Your task to perform on an android device: Open ESPN.com Image 0: 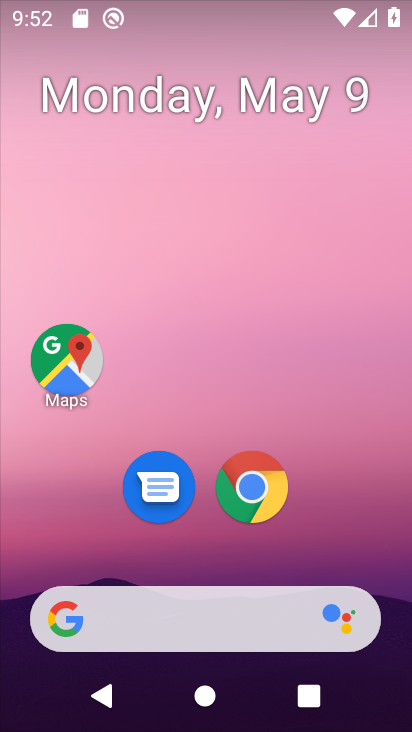
Step 0: drag from (387, 491) to (291, 17)
Your task to perform on an android device: Open ESPN.com Image 1: 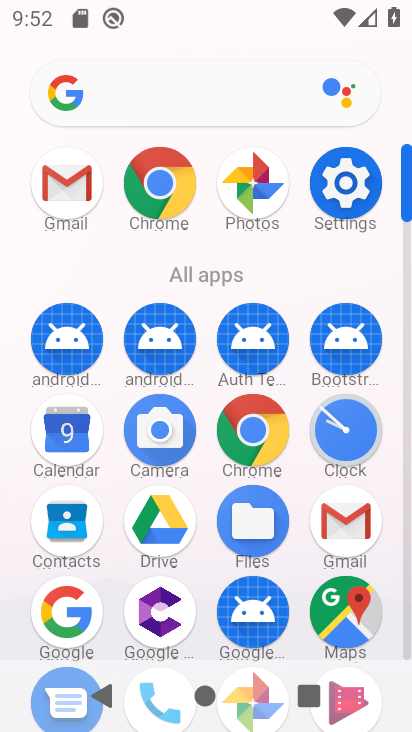
Step 1: click (161, 180)
Your task to perform on an android device: Open ESPN.com Image 2: 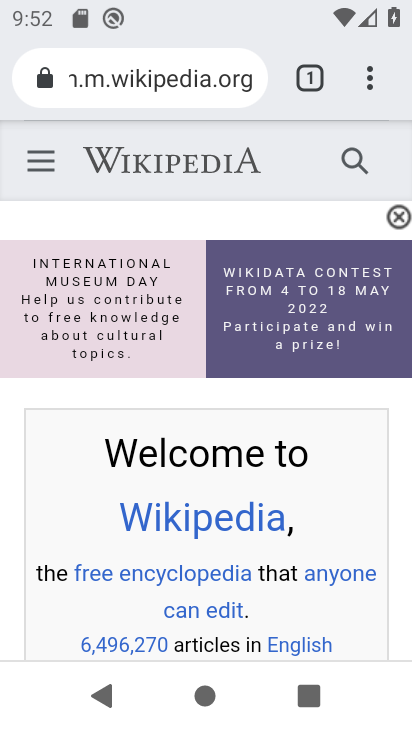
Step 2: click (160, 66)
Your task to perform on an android device: Open ESPN.com Image 3: 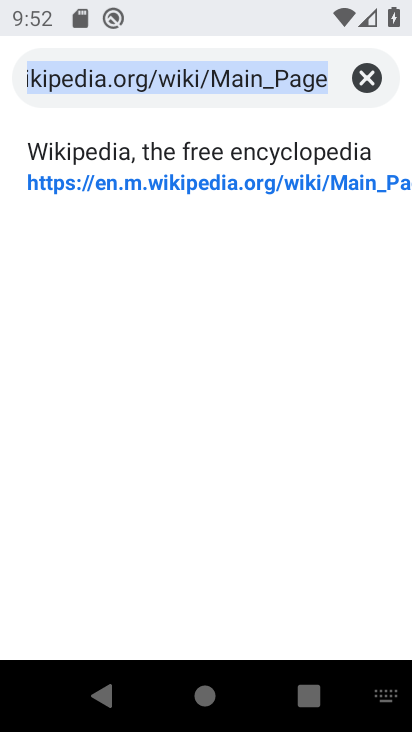
Step 3: click (368, 77)
Your task to perform on an android device: Open ESPN.com Image 4: 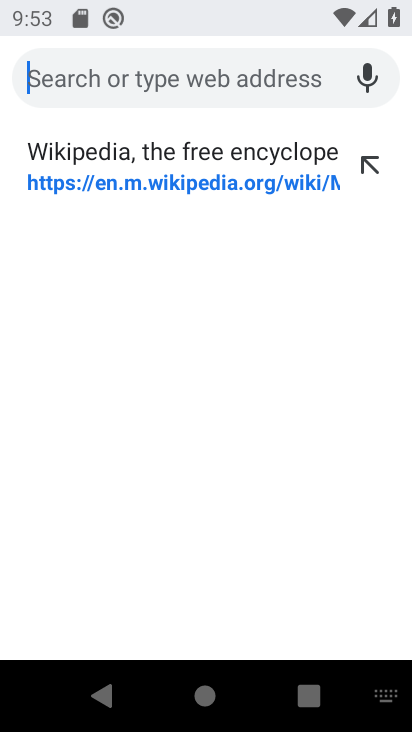
Step 4: type "ESPN.com"
Your task to perform on an android device: Open ESPN.com Image 5: 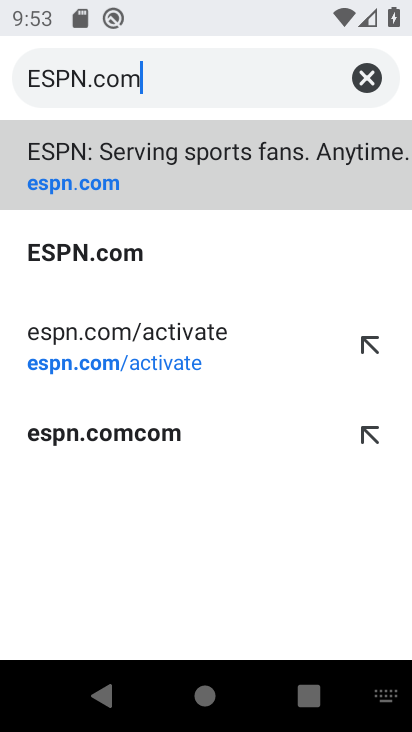
Step 5: type ""
Your task to perform on an android device: Open ESPN.com Image 6: 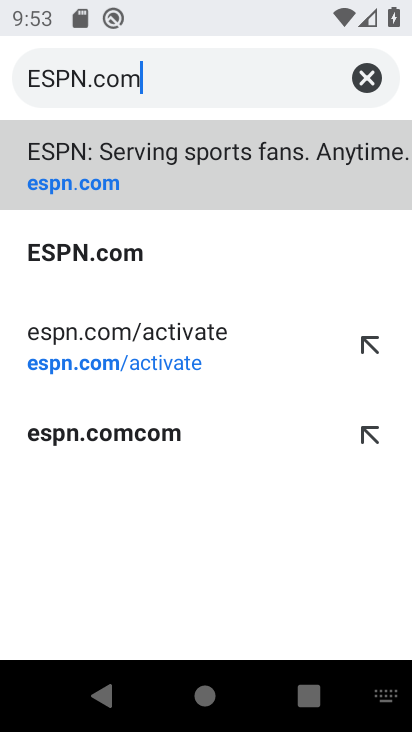
Step 6: click (97, 240)
Your task to perform on an android device: Open ESPN.com Image 7: 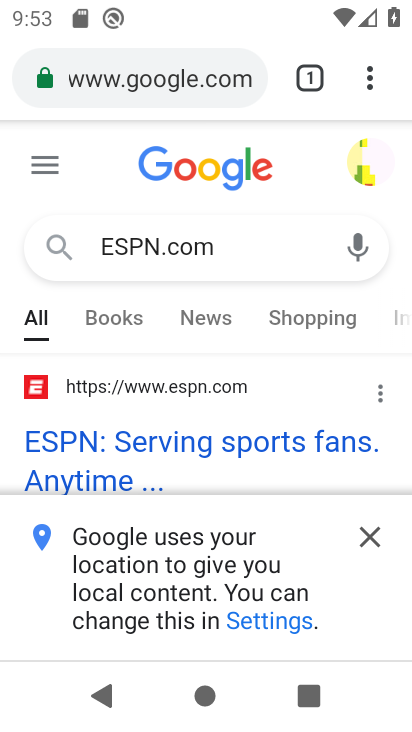
Step 7: click (114, 458)
Your task to perform on an android device: Open ESPN.com Image 8: 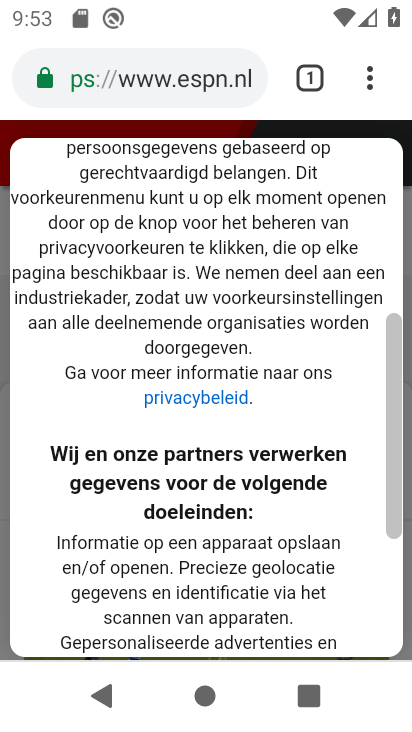
Step 8: drag from (257, 590) to (310, 182)
Your task to perform on an android device: Open ESPN.com Image 9: 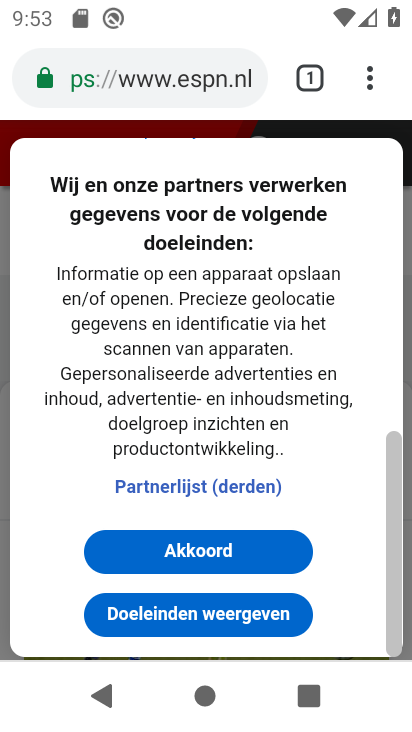
Step 9: click (214, 558)
Your task to perform on an android device: Open ESPN.com Image 10: 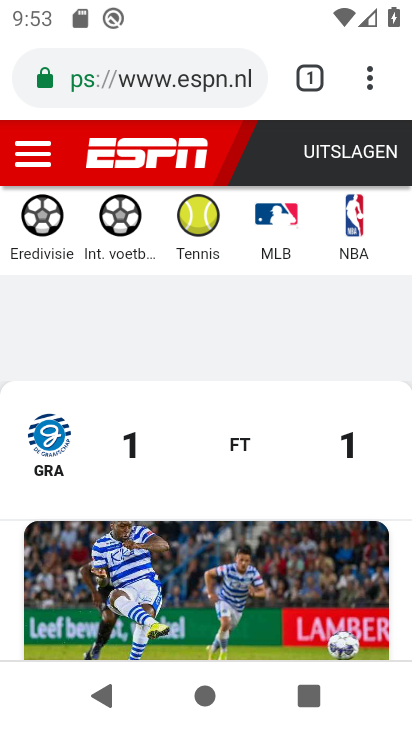
Step 10: task complete